Your task to perform on an android device: What's on my calendar today? Image 0: 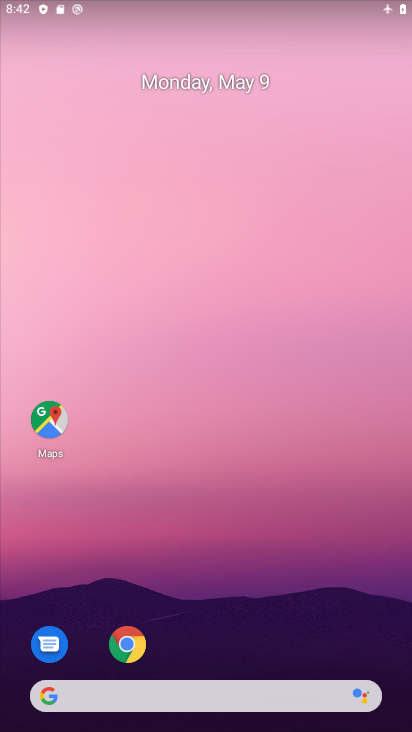
Step 0: click (214, 76)
Your task to perform on an android device: What's on my calendar today? Image 1: 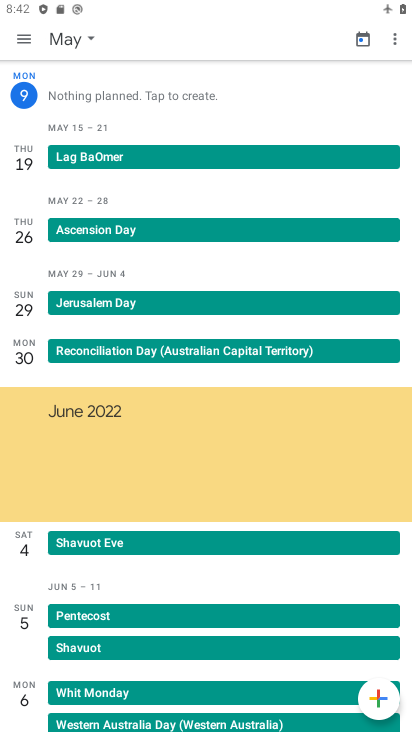
Step 1: click (19, 37)
Your task to perform on an android device: What's on my calendar today? Image 2: 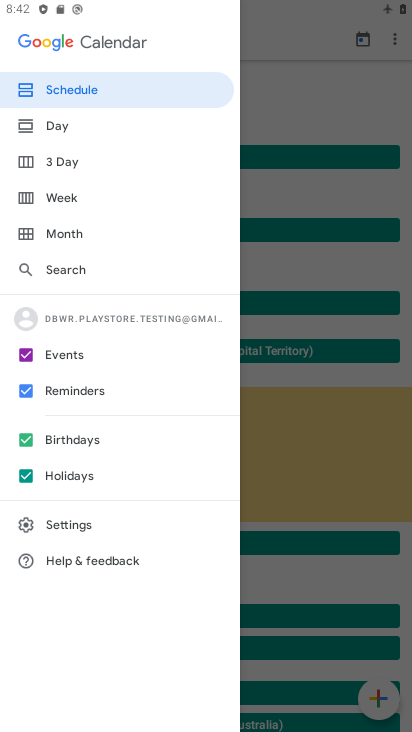
Step 2: click (68, 91)
Your task to perform on an android device: What's on my calendar today? Image 3: 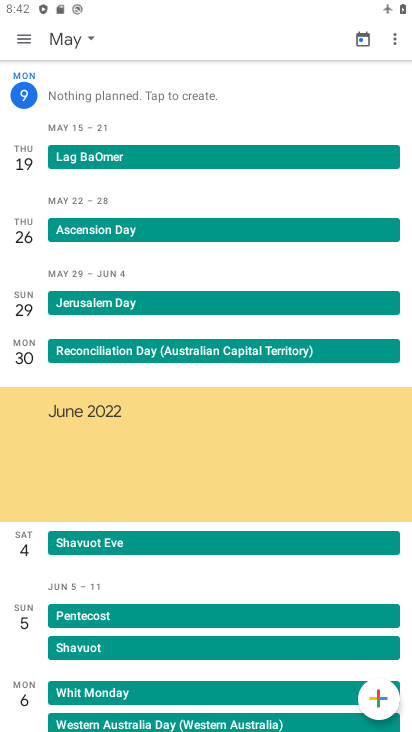
Step 3: click (70, 44)
Your task to perform on an android device: What's on my calendar today? Image 4: 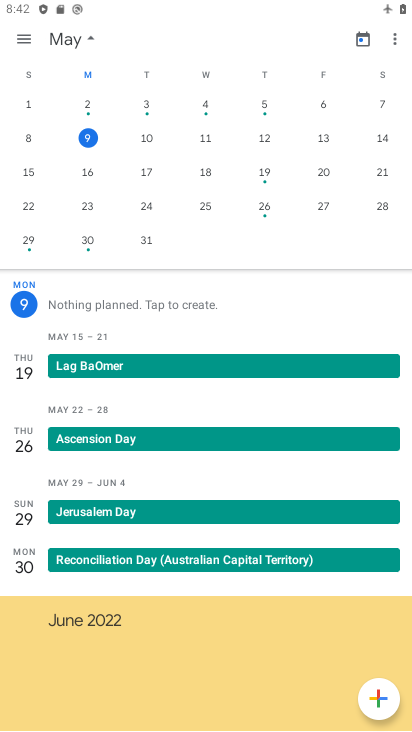
Step 4: click (146, 139)
Your task to perform on an android device: What's on my calendar today? Image 5: 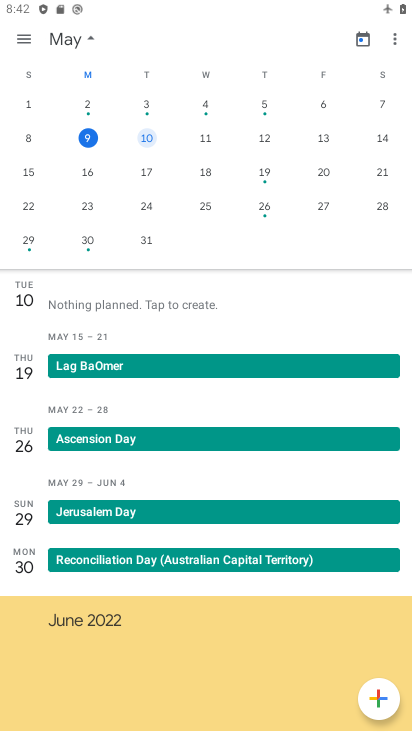
Step 5: click (88, 36)
Your task to perform on an android device: What's on my calendar today? Image 6: 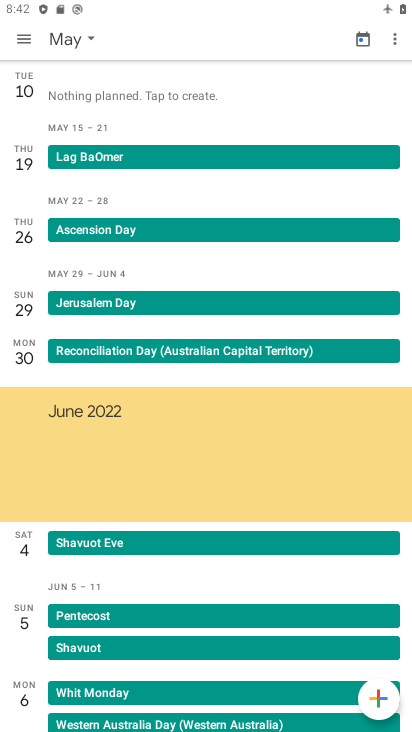
Step 6: task complete